Your task to perform on an android device: show emergency info Image 0: 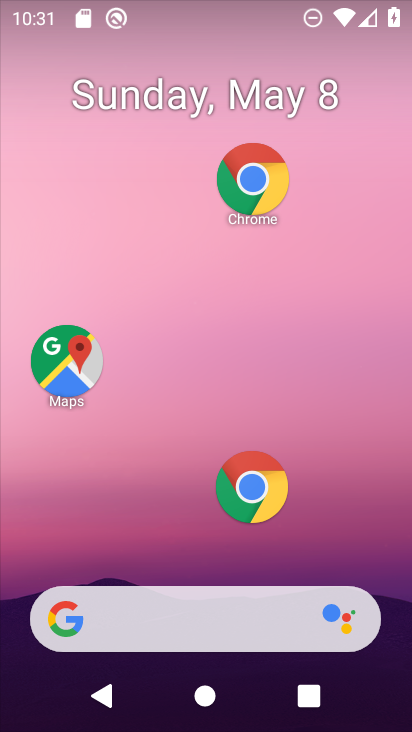
Step 0: drag from (149, 534) to (196, 27)
Your task to perform on an android device: show emergency info Image 1: 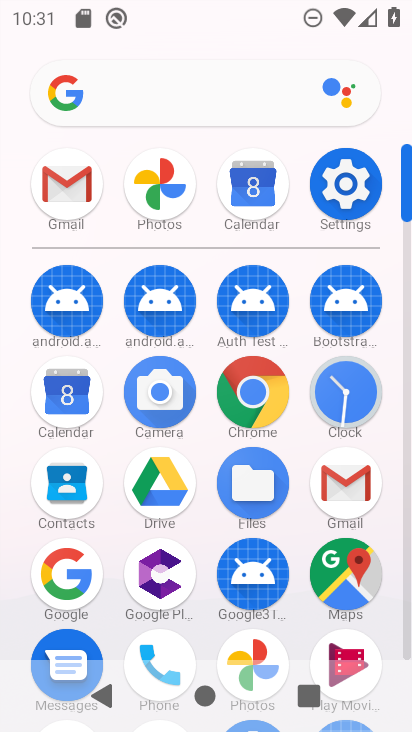
Step 1: drag from (198, 529) to (249, 171)
Your task to perform on an android device: show emergency info Image 2: 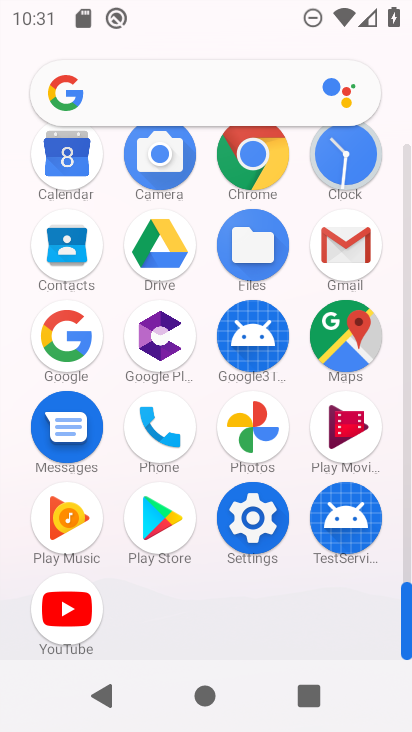
Step 2: click (237, 518)
Your task to perform on an android device: show emergency info Image 3: 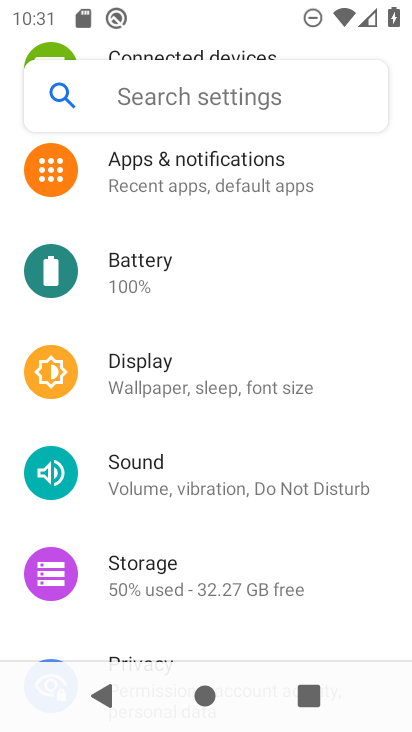
Step 3: drag from (216, 557) to (269, 150)
Your task to perform on an android device: show emergency info Image 4: 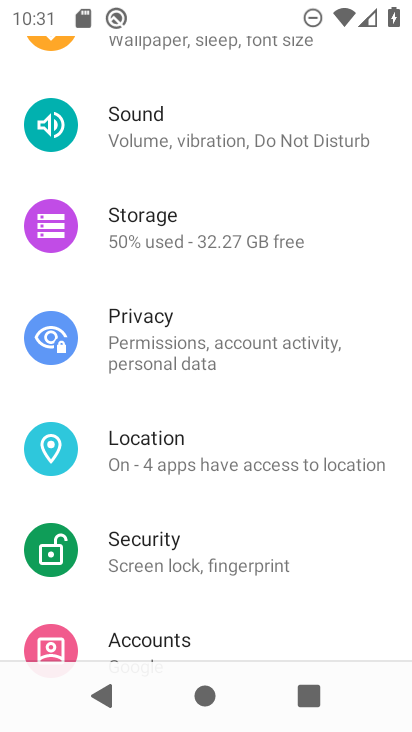
Step 4: drag from (246, 527) to (259, 140)
Your task to perform on an android device: show emergency info Image 5: 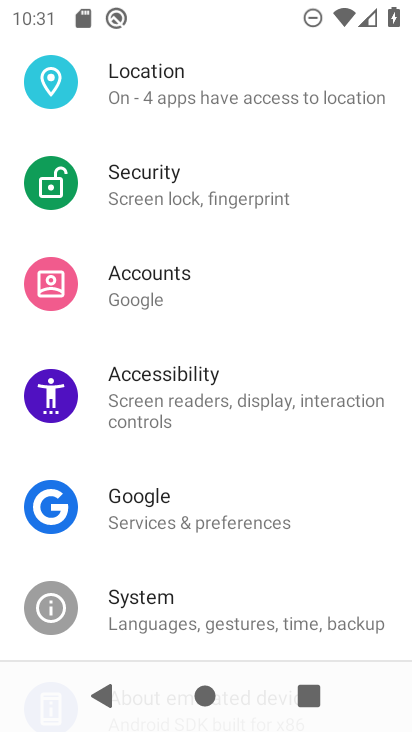
Step 5: drag from (200, 473) to (226, 182)
Your task to perform on an android device: show emergency info Image 6: 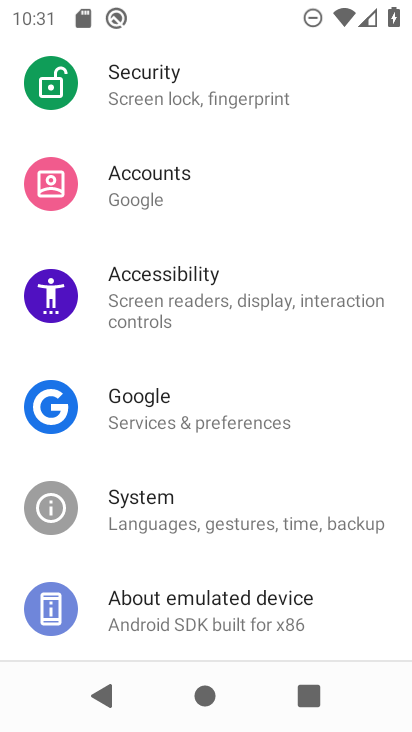
Step 6: click (176, 611)
Your task to perform on an android device: show emergency info Image 7: 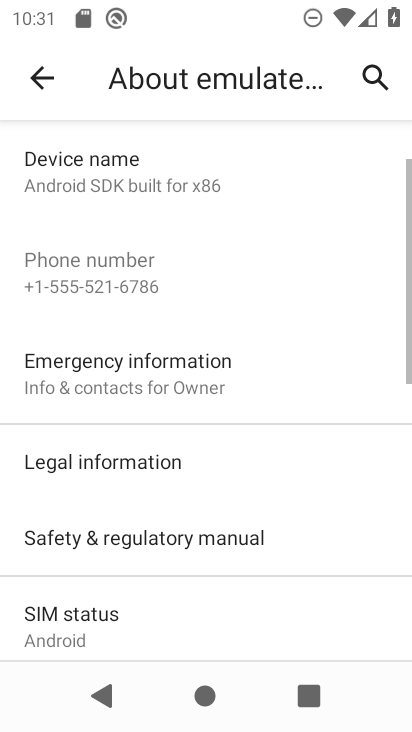
Step 7: click (212, 372)
Your task to perform on an android device: show emergency info Image 8: 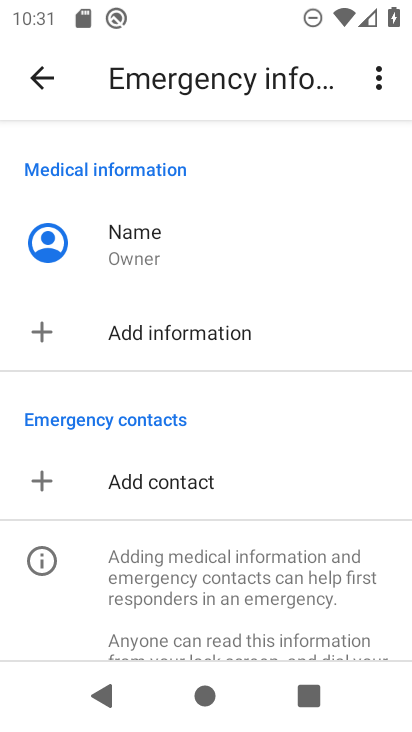
Step 8: task complete